Your task to perform on an android device: Turn off the flashlight Image 0: 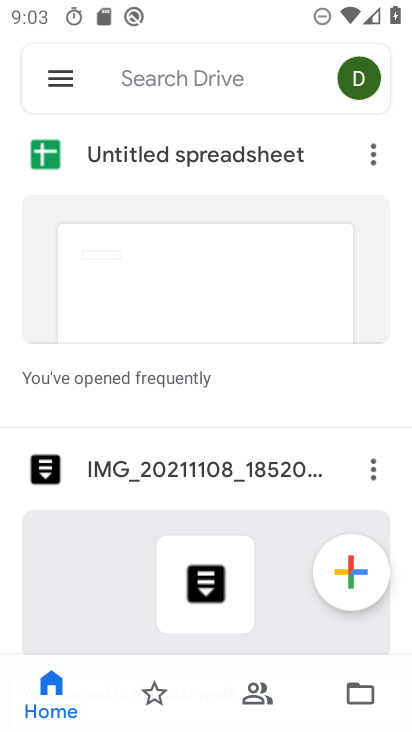
Step 0: press home button
Your task to perform on an android device: Turn off the flashlight Image 1: 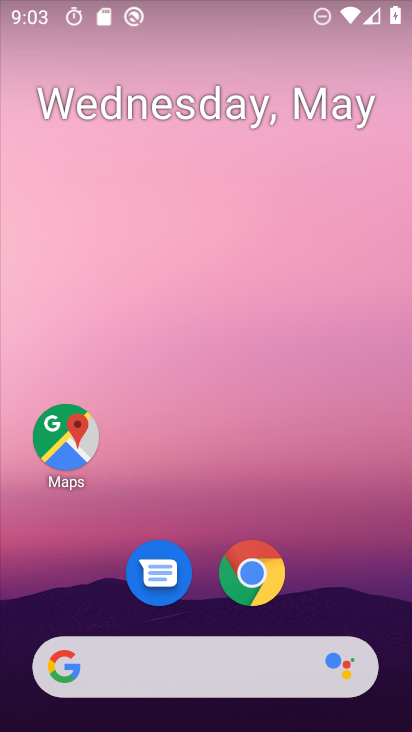
Step 1: drag from (397, 689) to (350, 233)
Your task to perform on an android device: Turn off the flashlight Image 2: 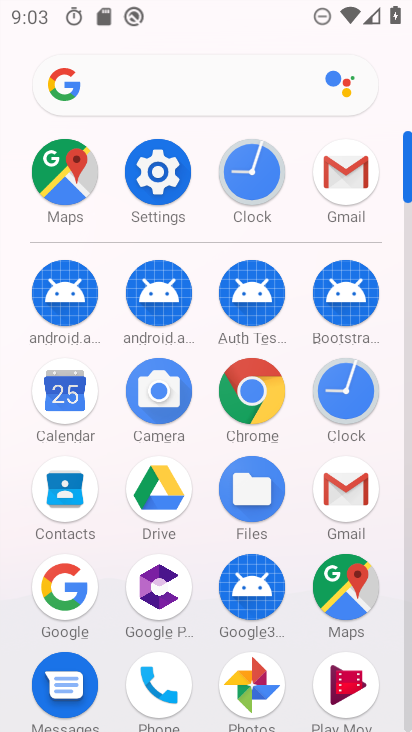
Step 2: click (137, 188)
Your task to perform on an android device: Turn off the flashlight Image 3: 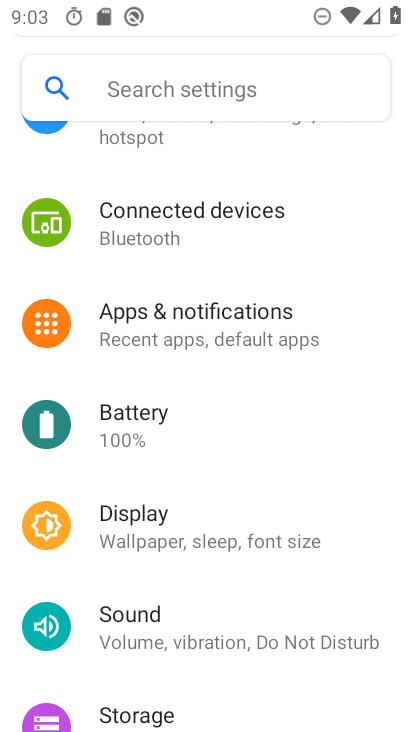
Step 3: click (129, 507)
Your task to perform on an android device: Turn off the flashlight Image 4: 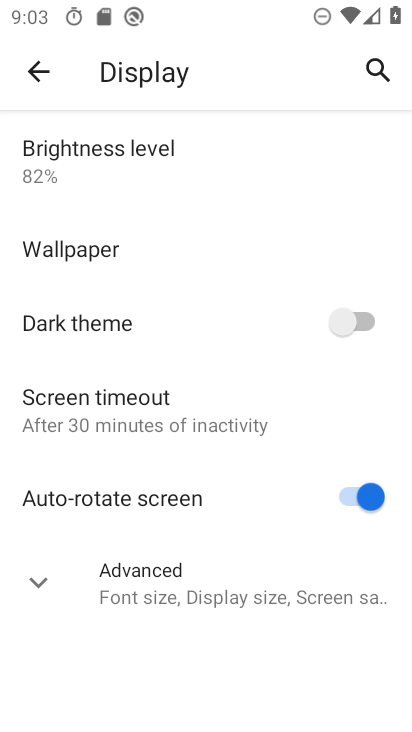
Step 4: task complete